Your task to perform on an android device: open app "Viber Messenger" (install if not already installed) Image 0: 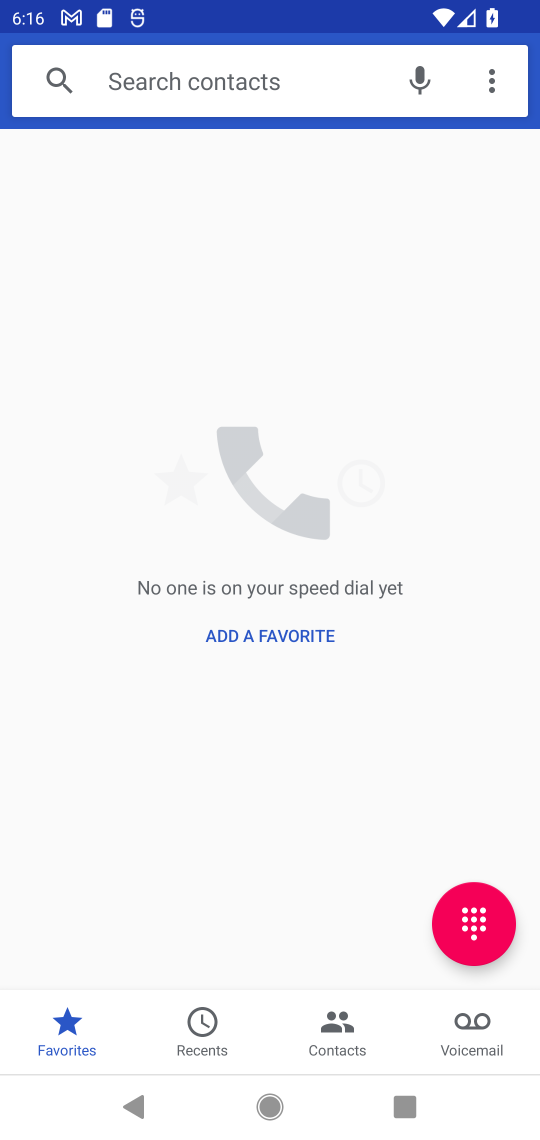
Step 0: press back button
Your task to perform on an android device: open app "Viber Messenger" (install if not already installed) Image 1: 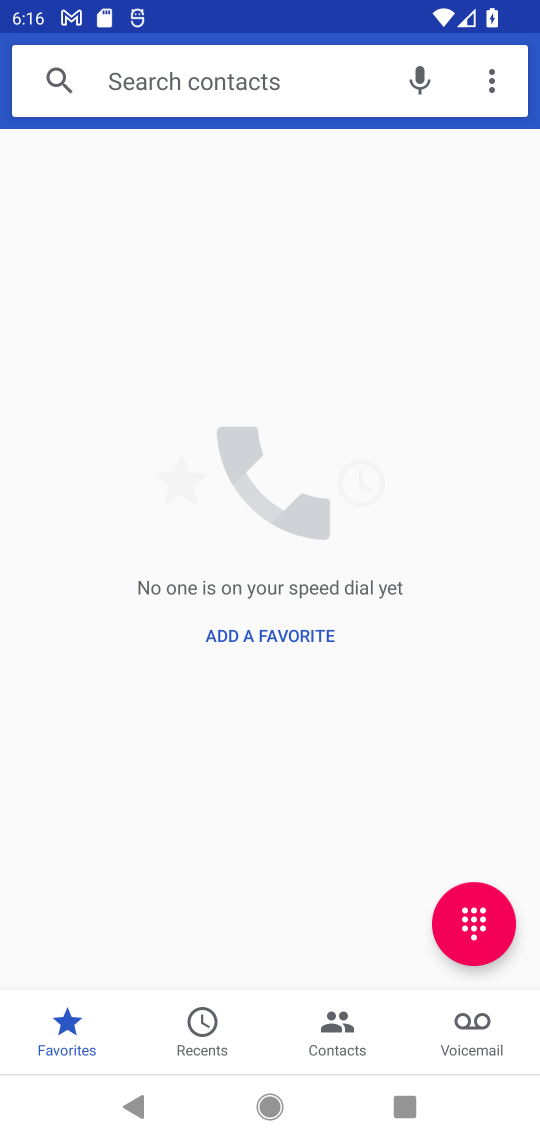
Step 1: press back button
Your task to perform on an android device: open app "Viber Messenger" (install if not already installed) Image 2: 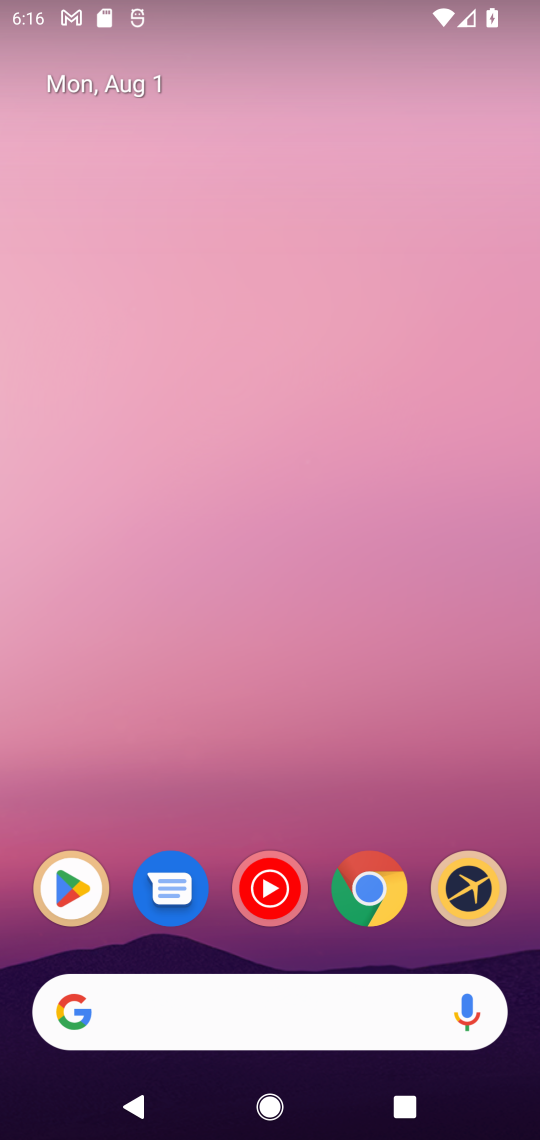
Step 2: press back button
Your task to perform on an android device: open app "Viber Messenger" (install if not already installed) Image 3: 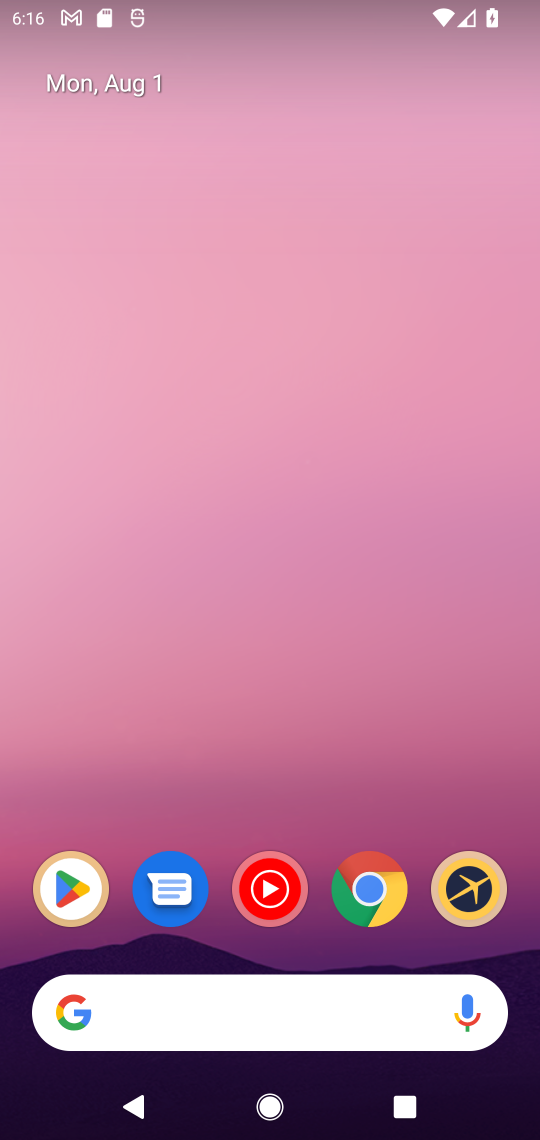
Step 3: drag from (257, 553) to (212, 313)
Your task to perform on an android device: open app "Viber Messenger" (install if not already installed) Image 4: 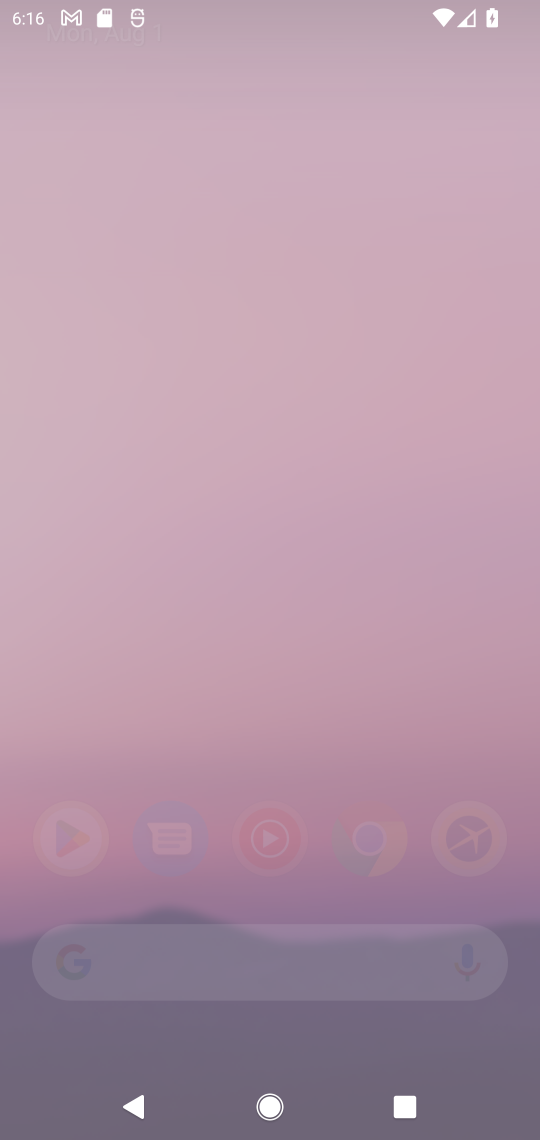
Step 4: drag from (383, 593) to (381, 451)
Your task to perform on an android device: open app "Viber Messenger" (install if not already installed) Image 5: 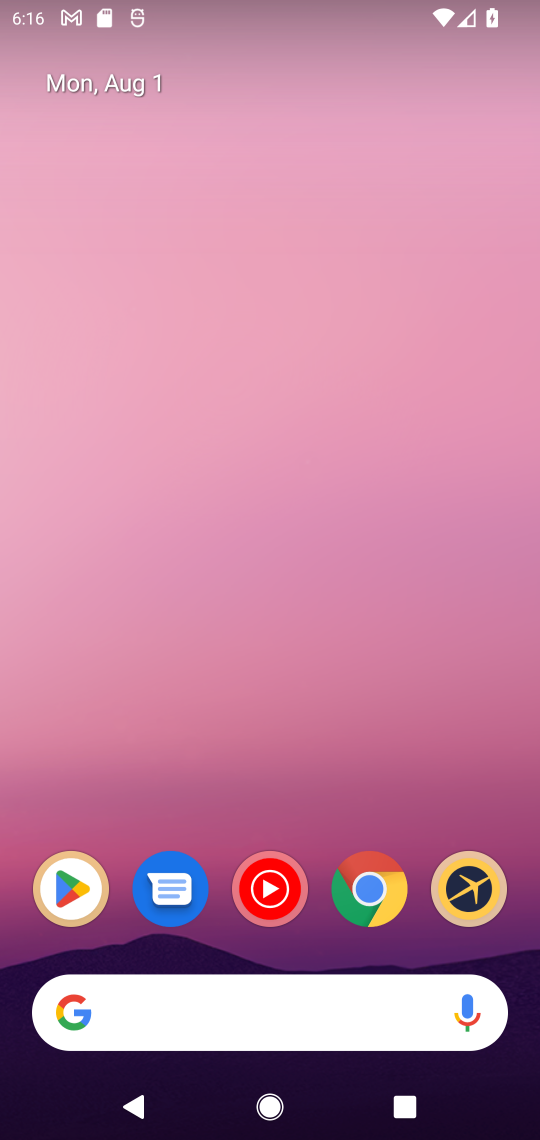
Step 5: drag from (317, 805) to (341, 199)
Your task to perform on an android device: open app "Viber Messenger" (install if not already installed) Image 6: 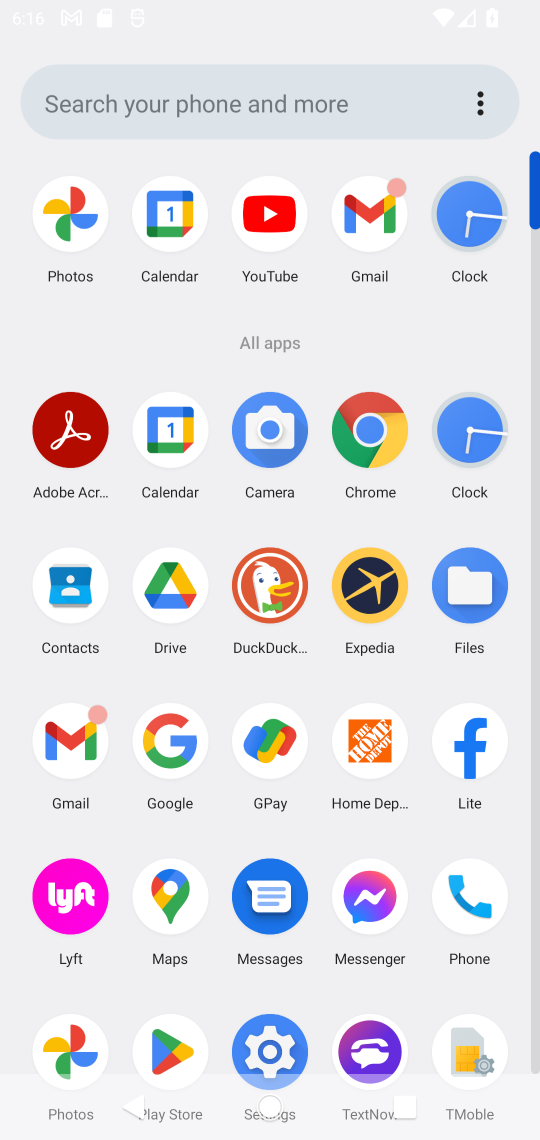
Step 6: drag from (238, 1112) to (222, 247)
Your task to perform on an android device: open app "Viber Messenger" (install if not already installed) Image 7: 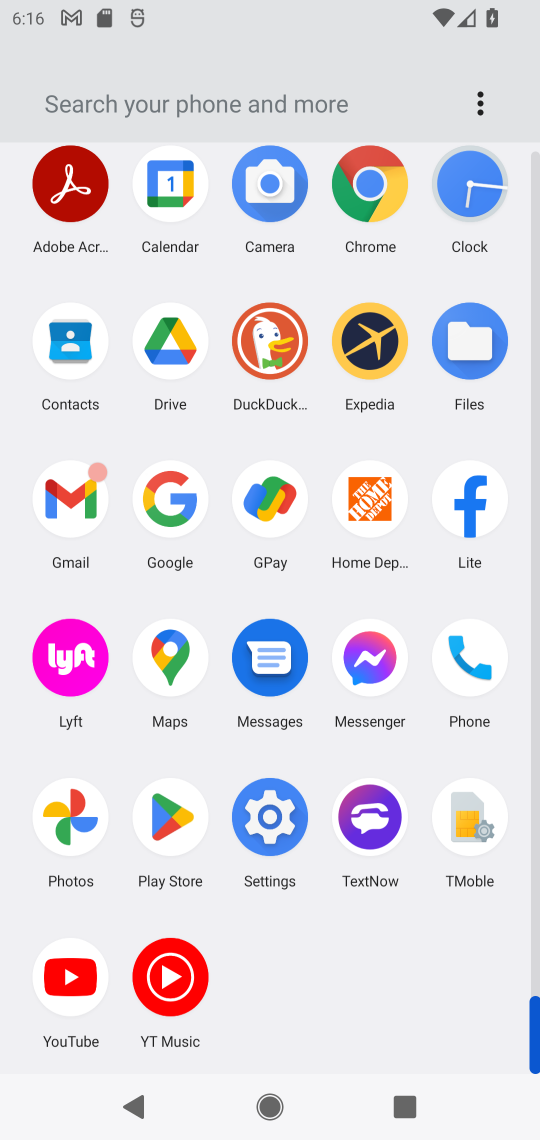
Step 7: drag from (276, 603) to (278, 352)
Your task to perform on an android device: open app "Viber Messenger" (install if not already installed) Image 8: 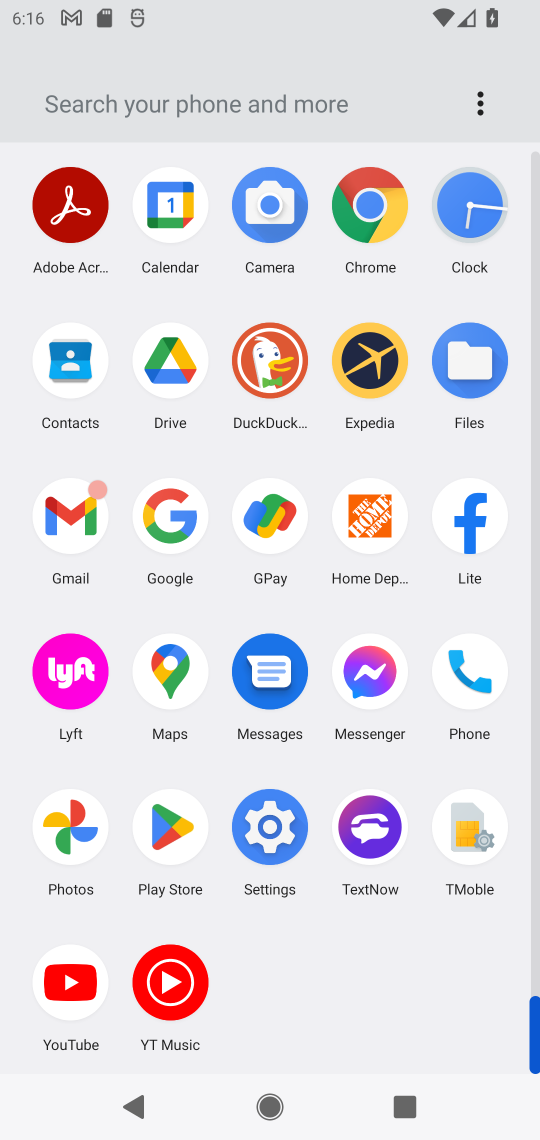
Step 8: click (162, 833)
Your task to perform on an android device: open app "Viber Messenger" (install if not already installed) Image 9: 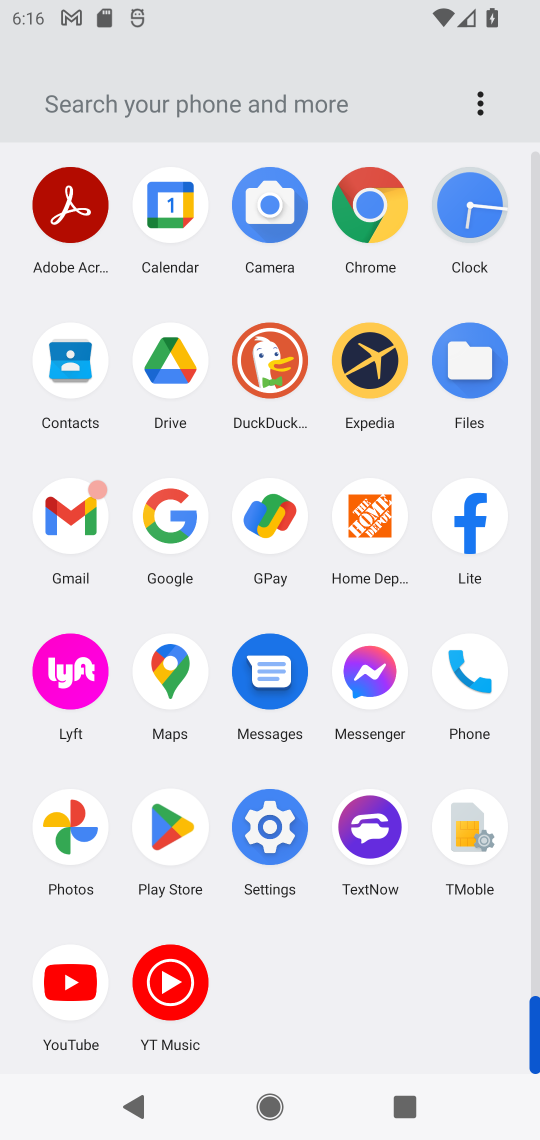
Step 9: click (198, 836)
Your task to perform on an android device: open app "Viber Messenger" (install if not already installed) Image 10: 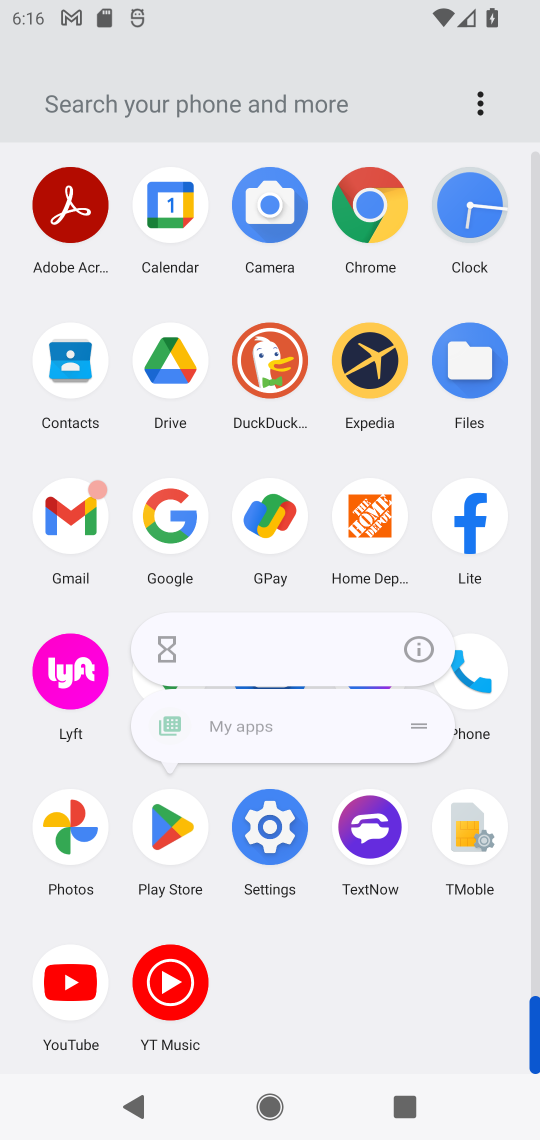
Step 10: click (164, 833)
Your task to perform on an android device: open app "Viber Messenger" (install if not already installed) Image 11: 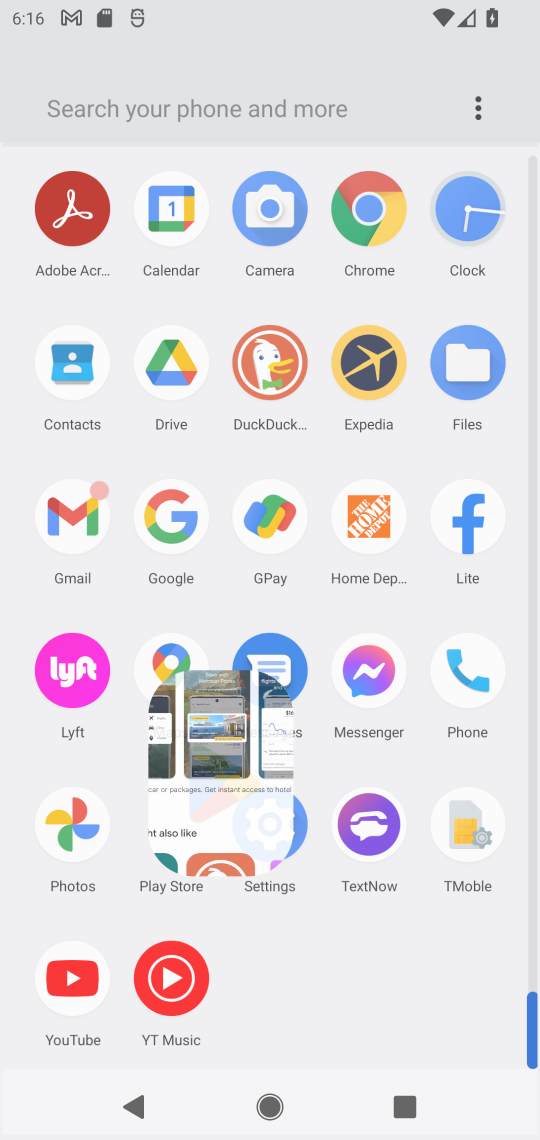
Step 11: click (168, 830)
Your task to perform on an android device: open app "Viber Messenger" (install if not already installed) Image 12: 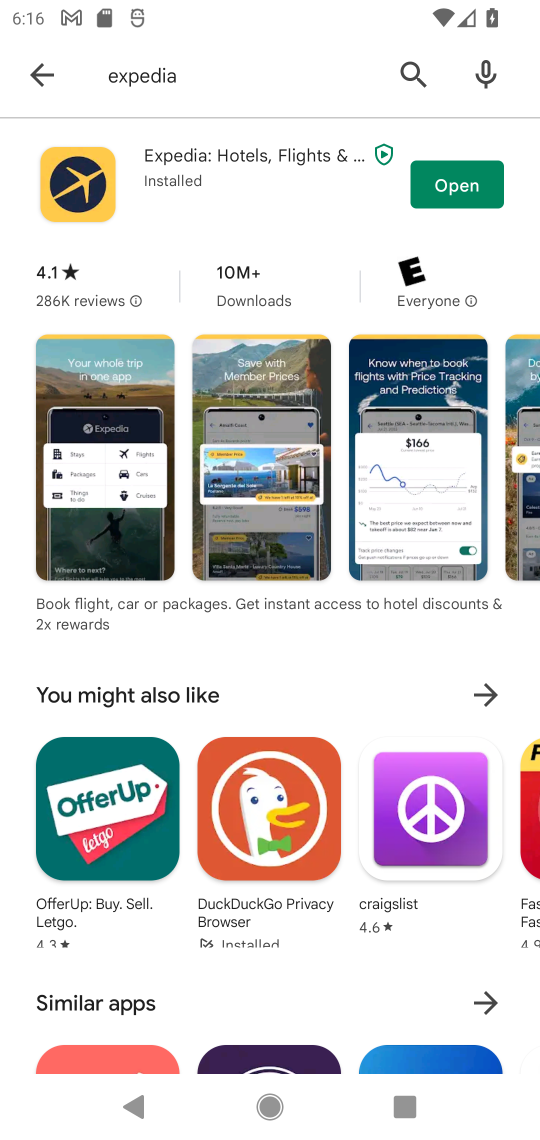
Step 12: click (30, 60)
Your task to perform on an android device: open app "Viber Messenger" (install if not already installed) Image 13: 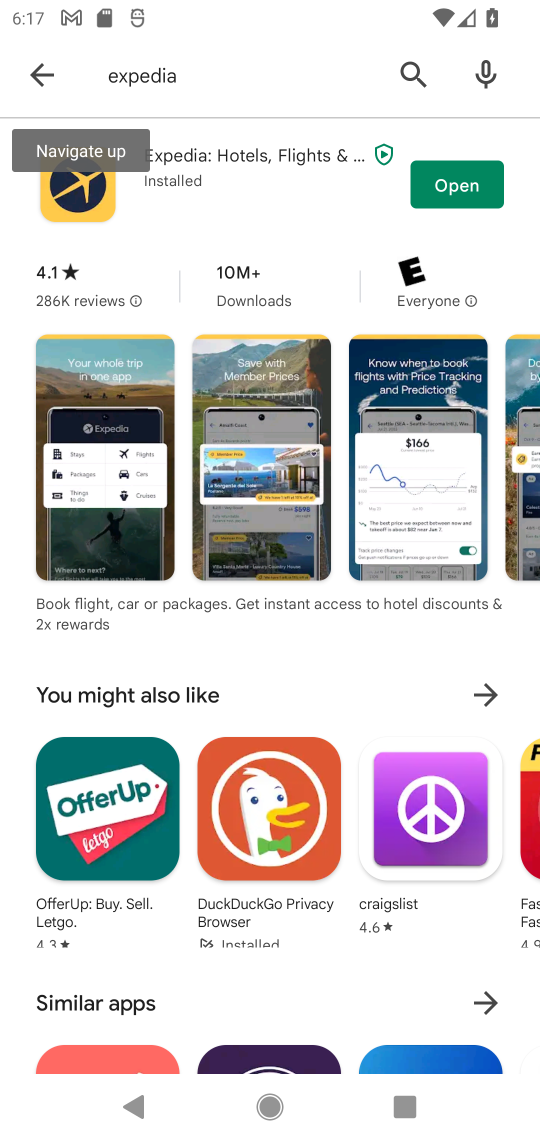
Step 13: click (179, 77)
Your task to perform on an android device: open app "Viber Messenger" (install if not already installed) Image 14: 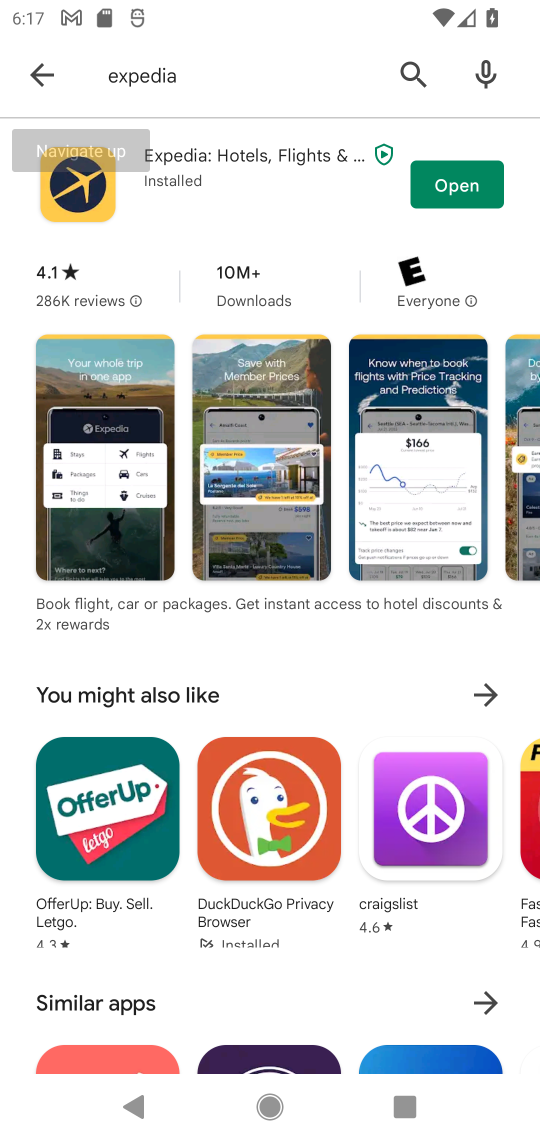
Step 14: click (176, 70)
Your task to perform on an android device: open app "Viber Messenger" (install if not already installed) Image 15: 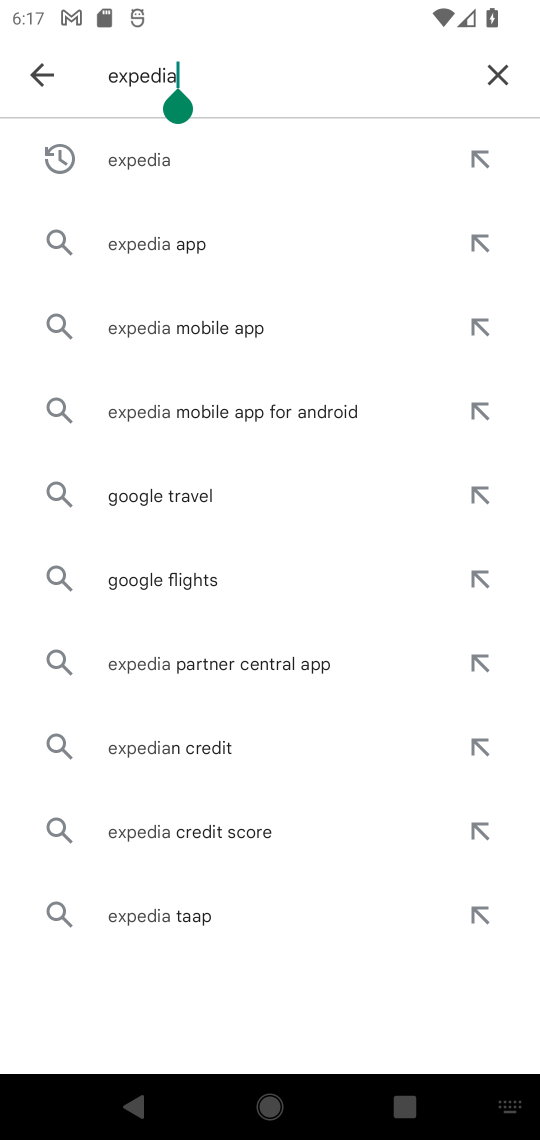
Step 15: click (506, 62)
Your task to perform on an android device: open app "Viber Messenger" (install if not already installed) Image 16: 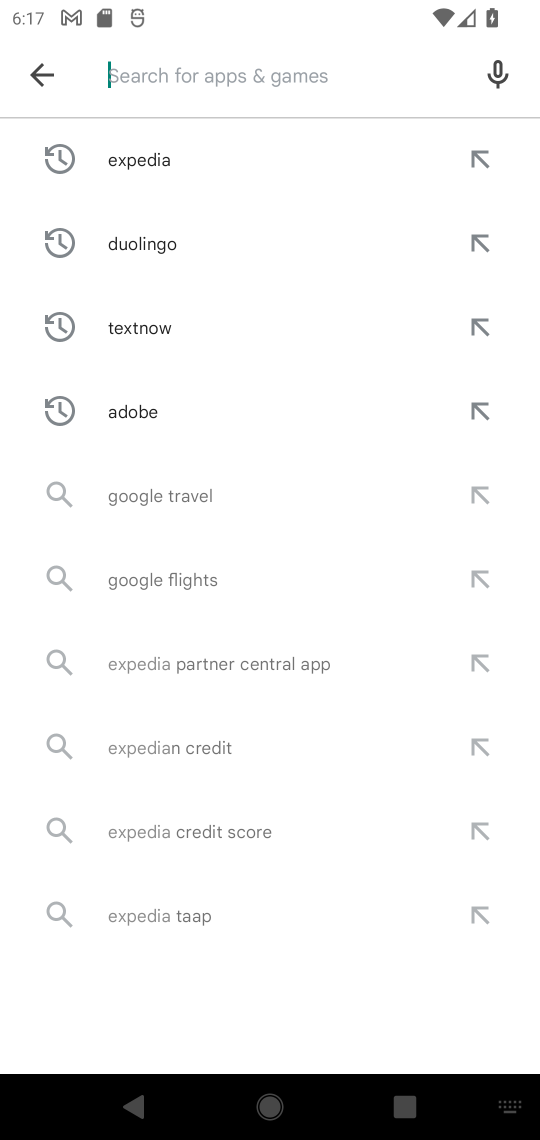
Step 16: click (504, 72)
Your task to perform on an android device: open app "Viber Messenger" (install if not already installed) Image 17: 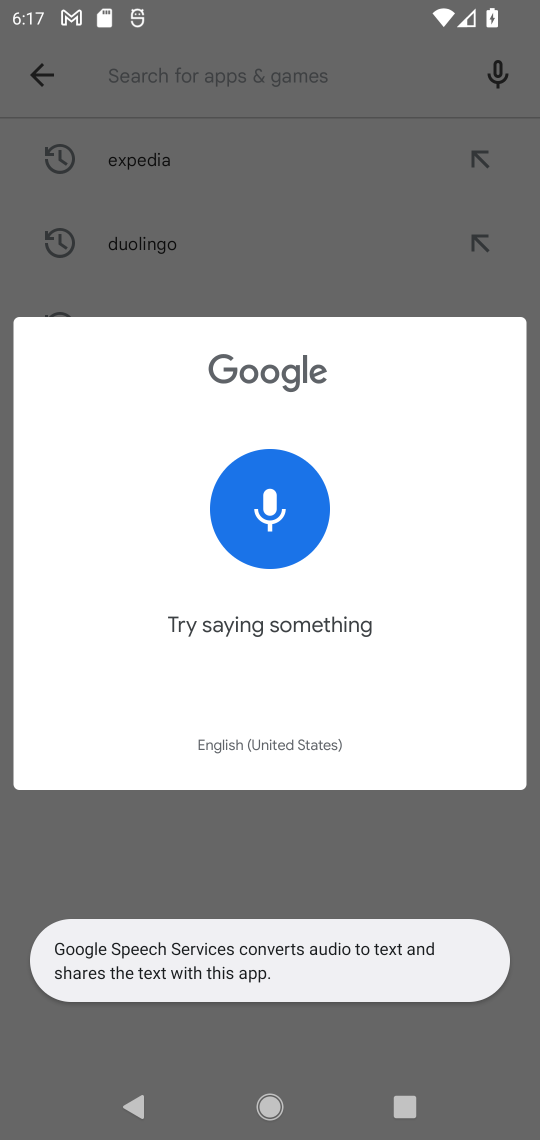
Step 17: click (265, 248)
Your task to perform on an android device: open app "Viber Messenger" (install if not already installed) Image 18: 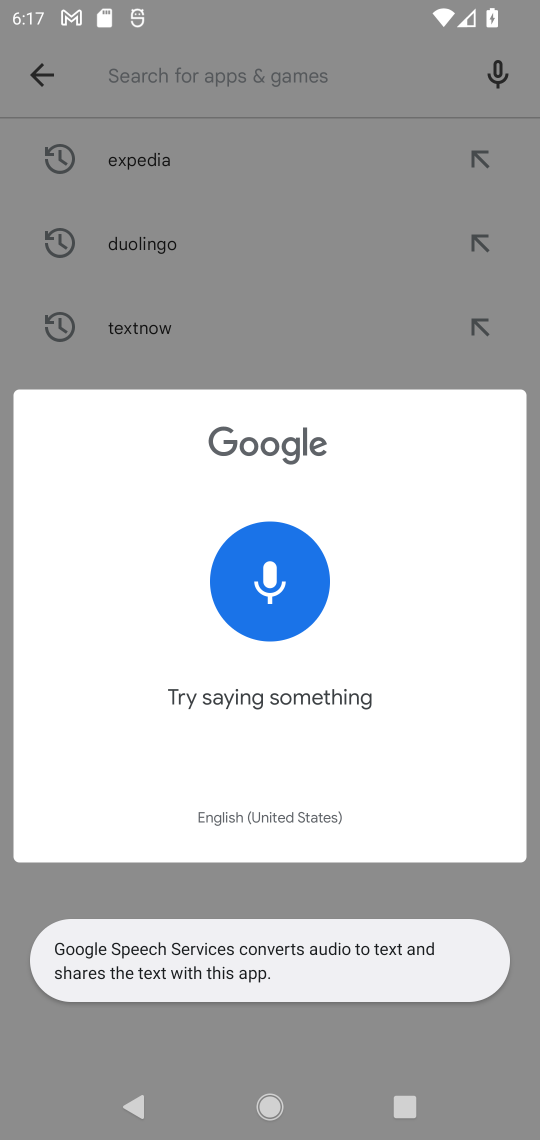
Step 18: click (277, 240)
Your task to perform on an android device: open app "Viber Messenger" (install if not already installed) Image 19: 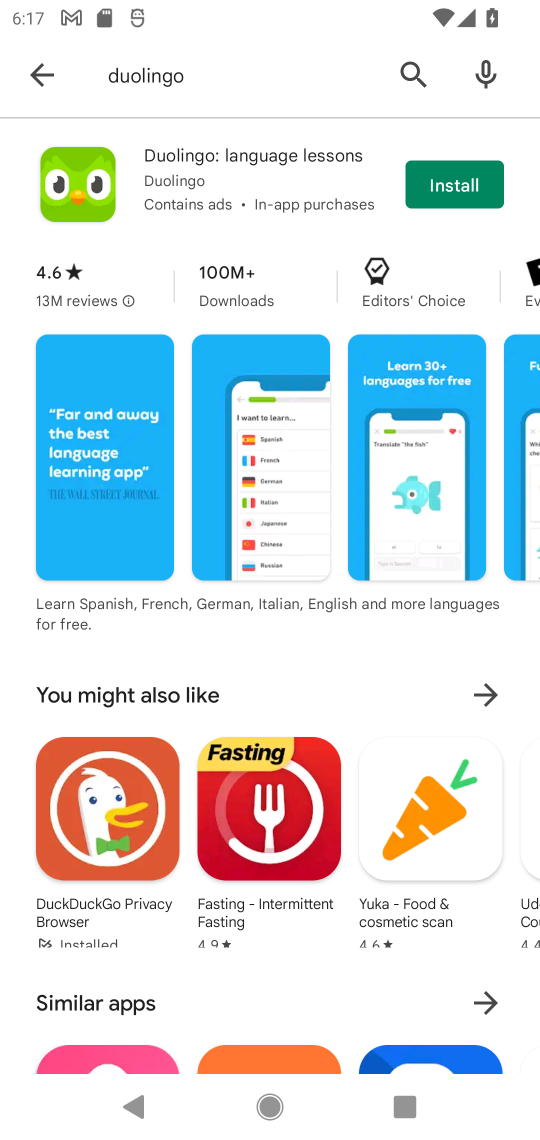
Step 19: click (49, 67)
Your task to perform on an android device: open app "Viber Messenger" (install if not already installed) Image 20: 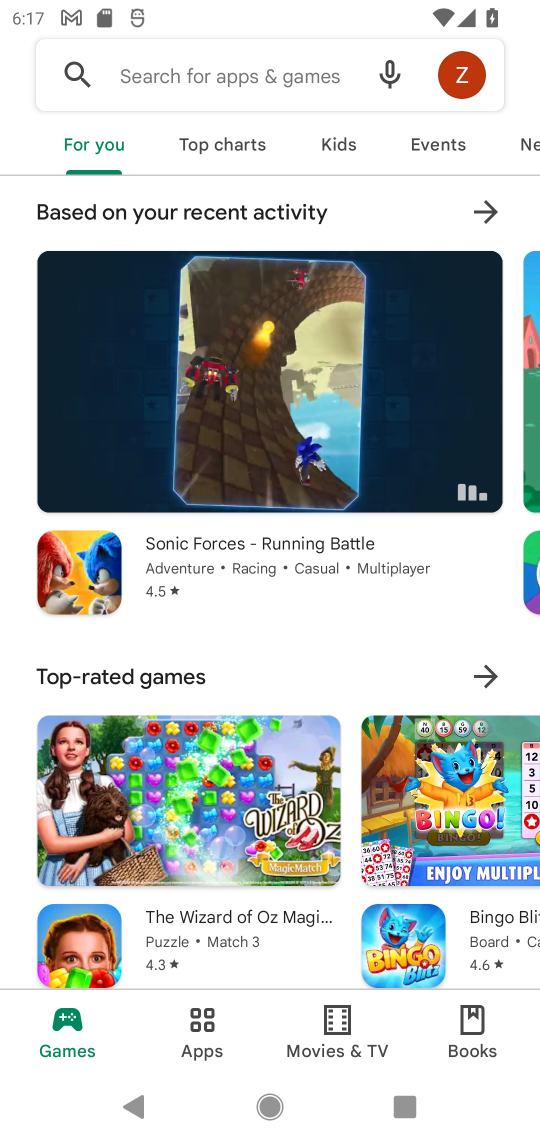
Step 20: click (150, 86)
Your task to perform on an android device: open app "Viber Messenger" (install if not already installed) Image 21: 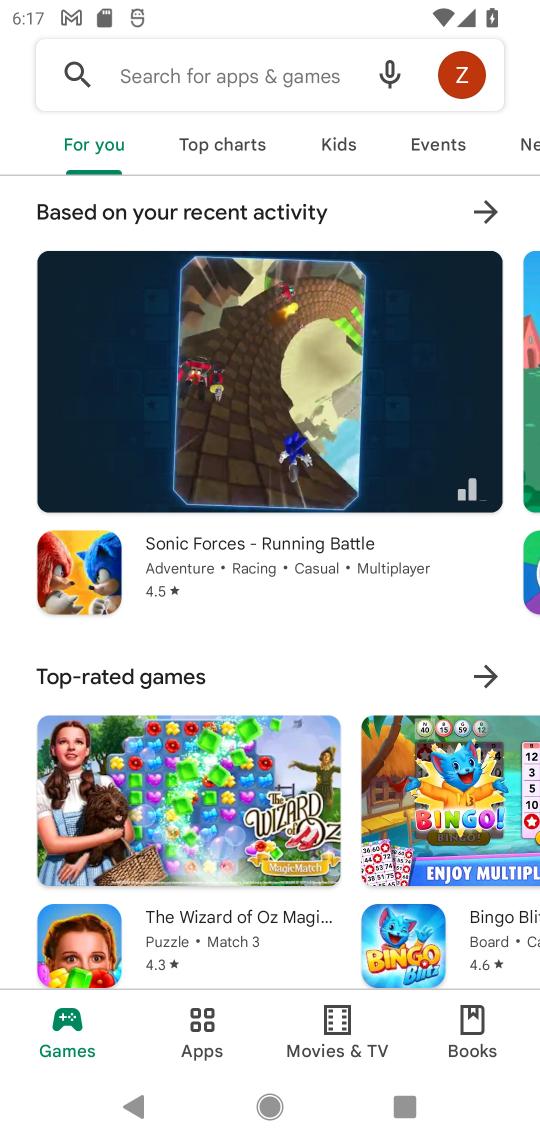
Step 21: click (152, 84)
Your task to perform on an android device: open app "Viber Messenger" (install if not already installed) Image 22: 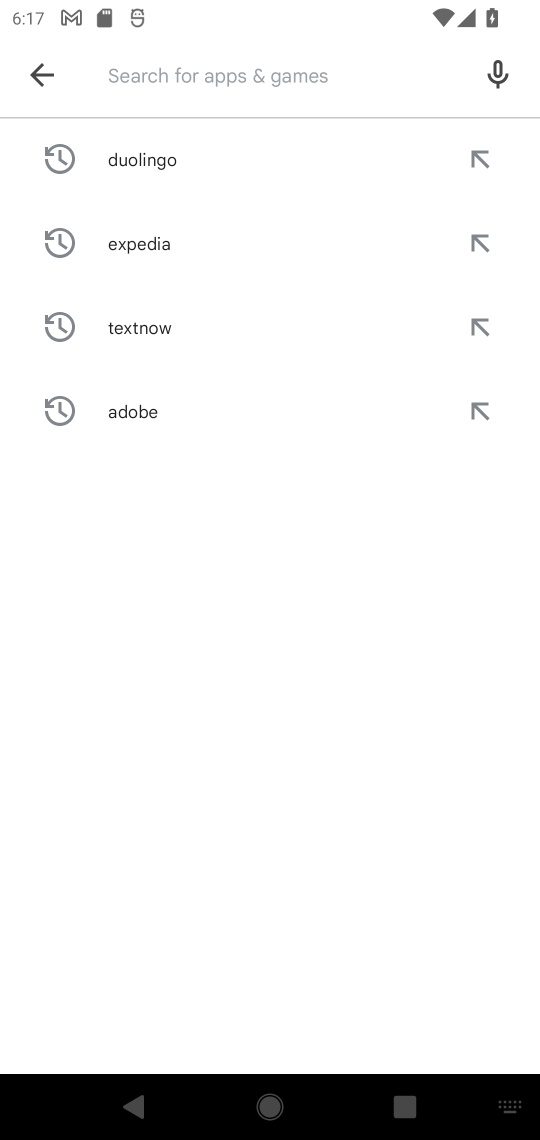
Step 22: type "viber messenger"
Your task to perform on an android device: open app "Viber Messenger" (install if not already installed) Image 23: 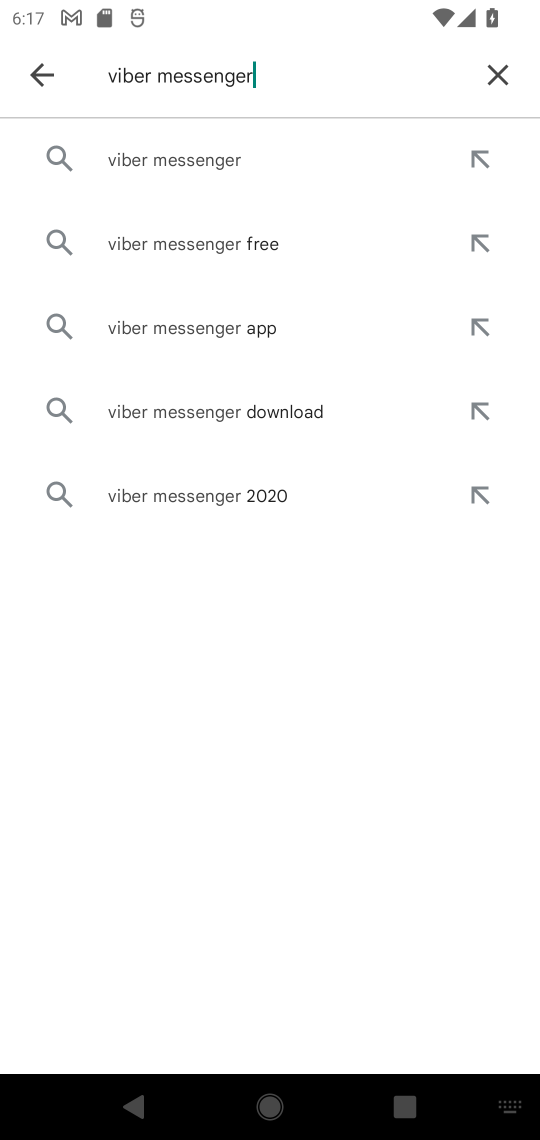
Step 23: click (210, 156)
Your task to perform on an android device: open app "Viber Messenger" (install if not already installed) Image 24: 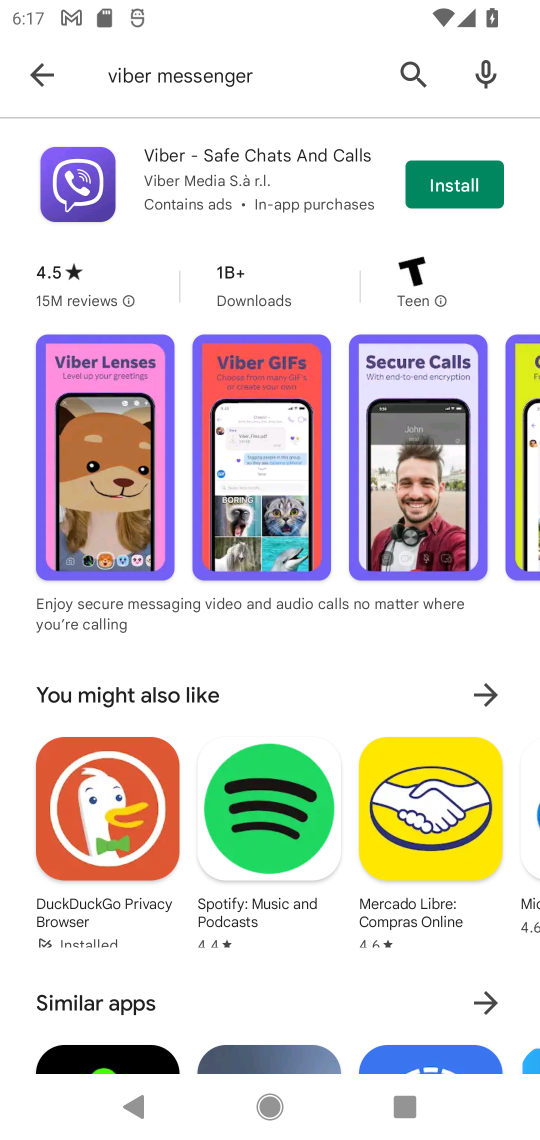
Step 24: click (455, 207)
Your task to perform on an android device: open app "Viber Messenger" (install if not already installed) Image 25: 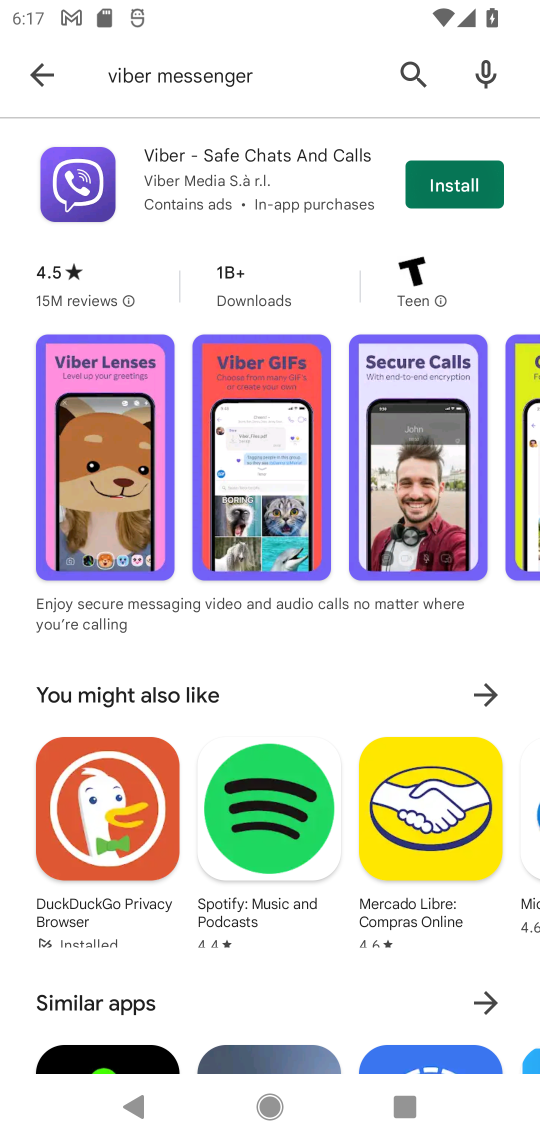
Step 25: click (479, 189)
Your task to perform on an android device: open app "Viber Messenger" (install if not already installed) Image 26: 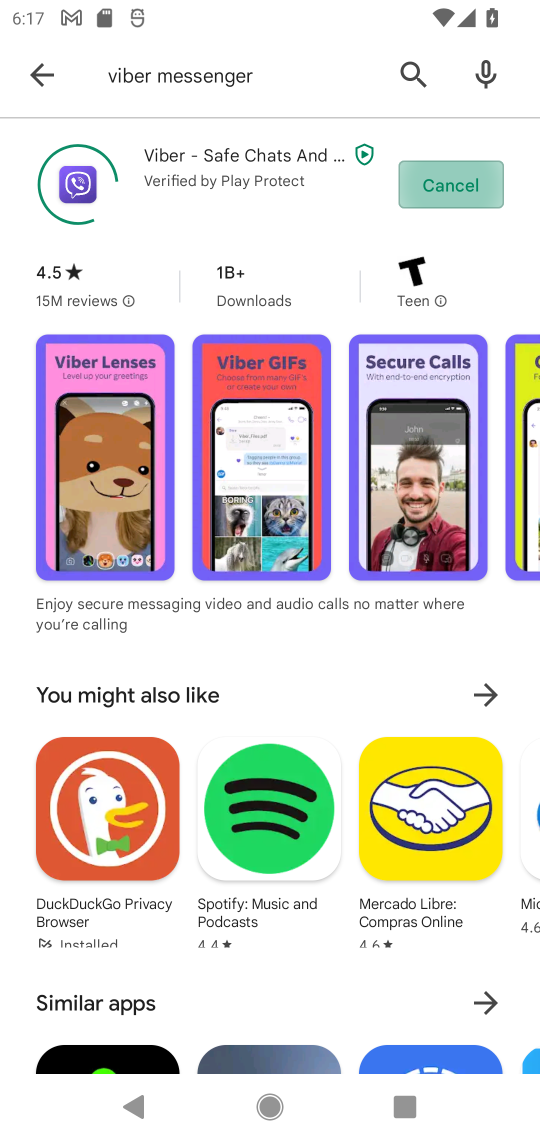
Step 26: click (488, 189)
Your task to perform on an android device: open app "Viber Messenger" (install if not already installed) Image 27: 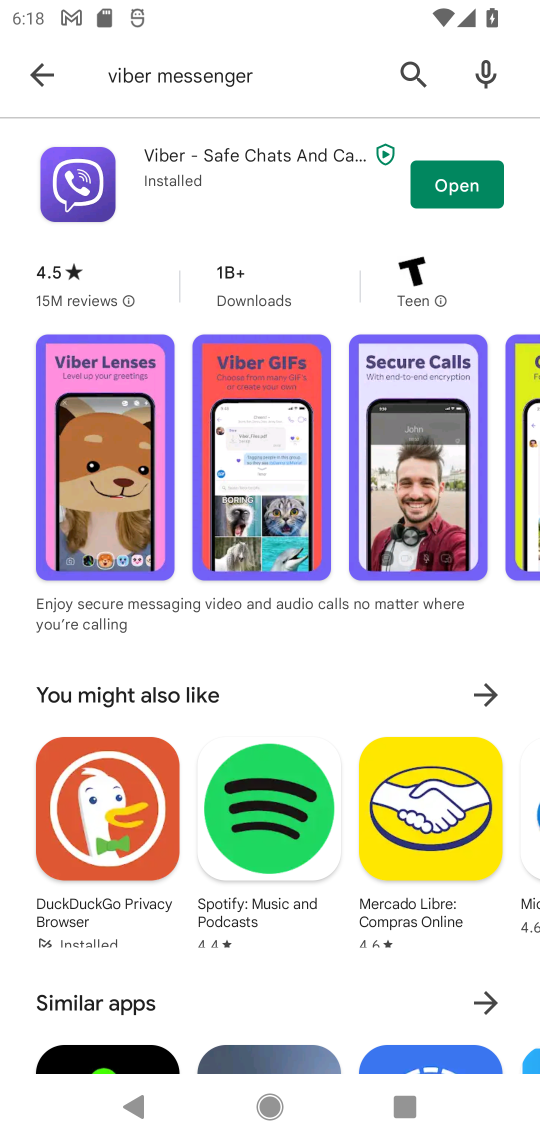
Step 27: click (461, 190)
Your task to perform on an android device: open app "Viber Messenger" (install if not already installed) Image 28: 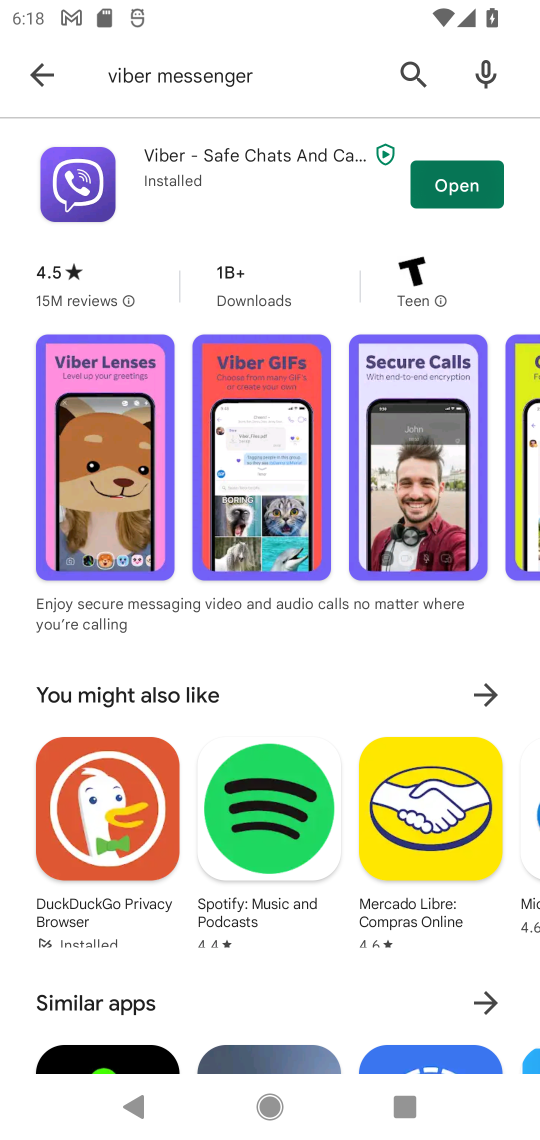
Step 28: click (478, 211)
Your task to perform on an android device: open app "Viber Messenger" (install if not already installed) Image 29: 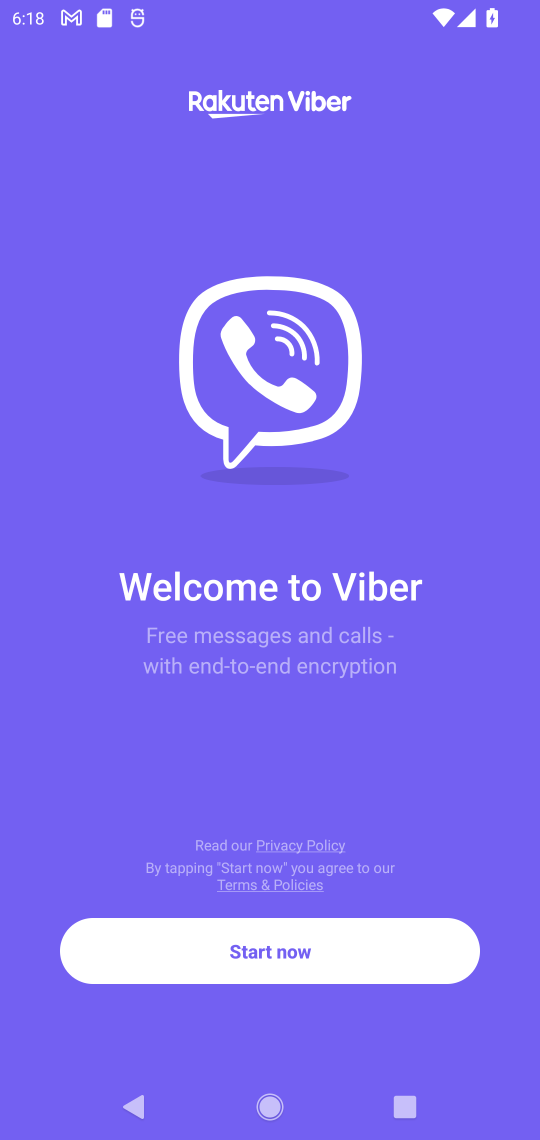
Step 29: task complete